Your task to perform on an android device: change notification settings in the gmail app Image 0: 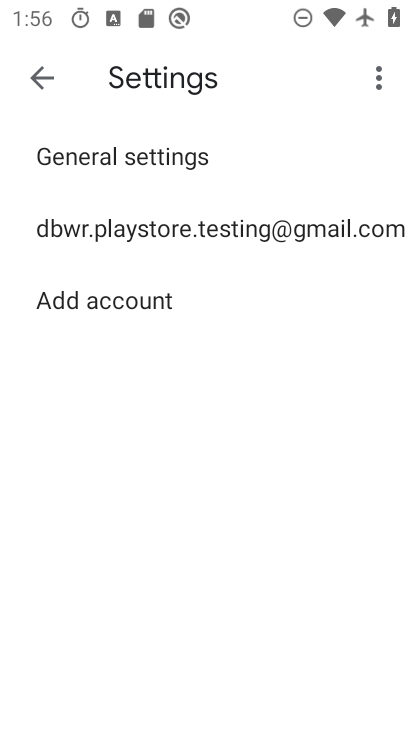
Step 0: press home button
Your task to perform on an android device: change notification settings in the gmail app Image 1: 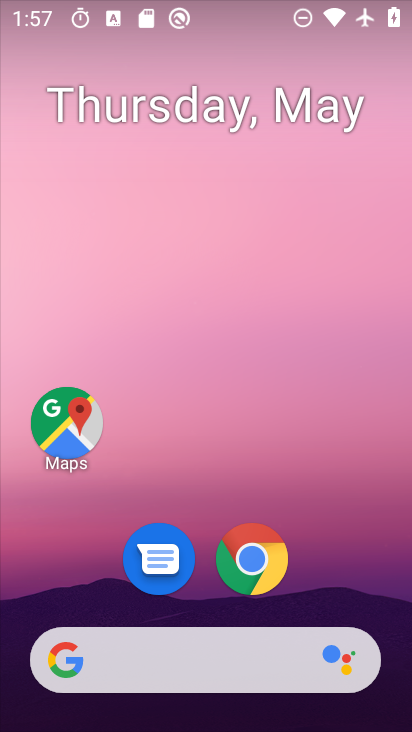
Step 1: drag from (237, 677) to (275, 238)
Your task to perform on an android device: change notification settings in the gmail app Image 2: 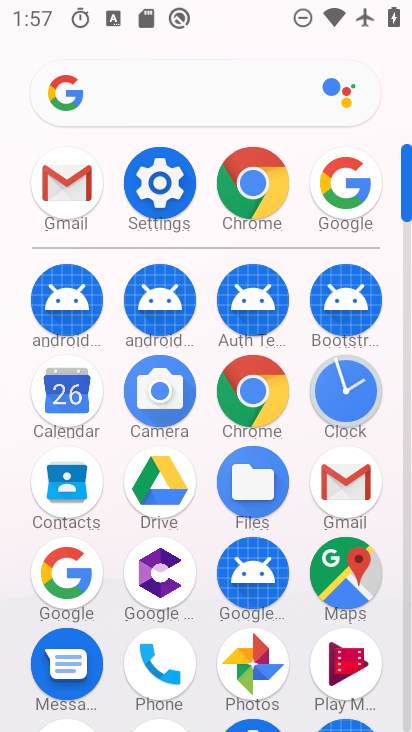
Step 2: click (350, 479)
Your task to perform on an android device: change notification settings in the gmail app Image 3: 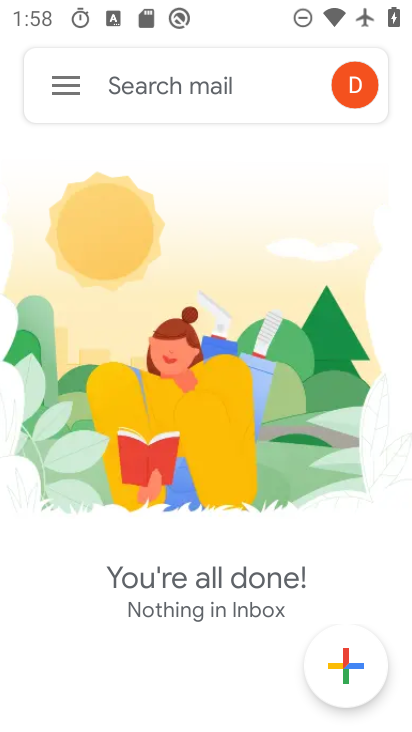
Step 3: click (65, 89)
Your task to perform on an android device: change notification settings in the gmail app Image 4: 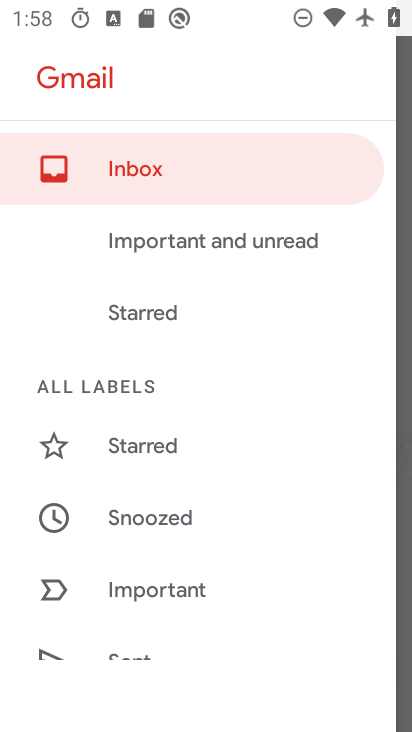
Step 4: drag from (186, 511) to (171, 95)
Your task to perform on an android device: change notification settings in the gmail app Image 5: 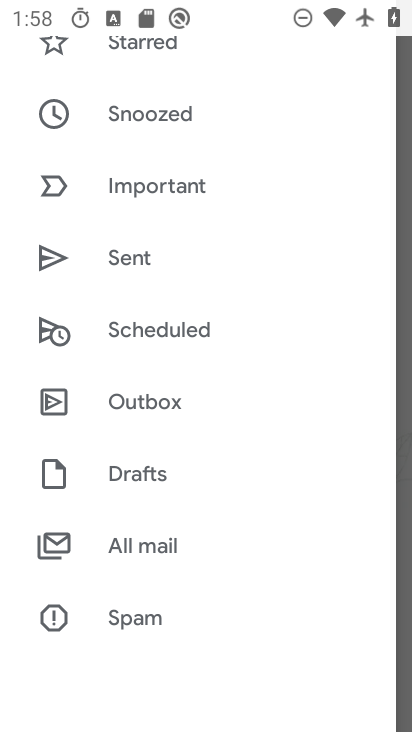
Step 5: drag from (158, 553) to (152, 149)
Your task to perform on an android device: change notification settings in the gmail app Image 6: 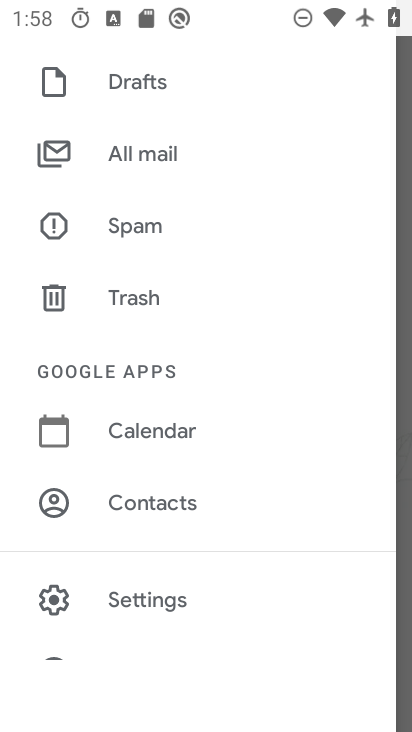
Step 6: click (135, 599)
Your task to perform on an android device: change notification settings in the gmail app Image 7: 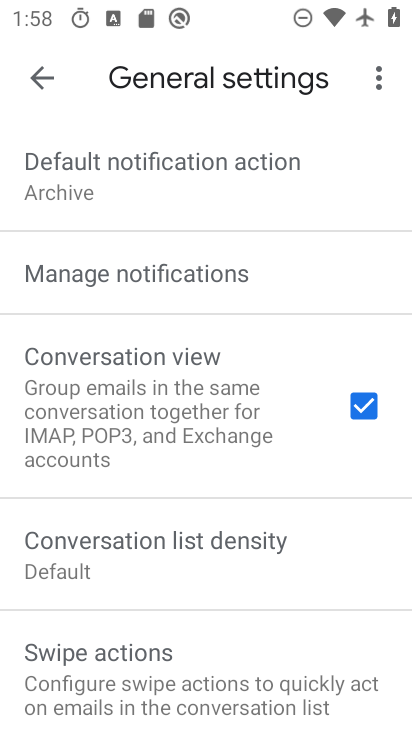
Step 7: click (127, 287)
Your task to perform on an android device: change notification settings in the gmail app Image 8: 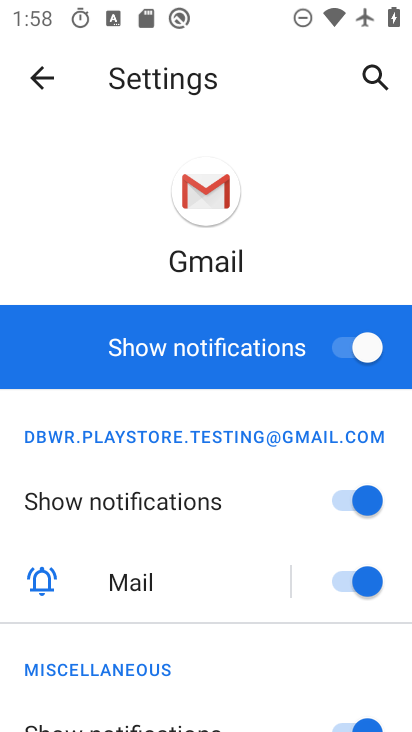
Step 8: click (293, 351)
Your task to perform on an android device: change notification settings in the gmail app Image 9: 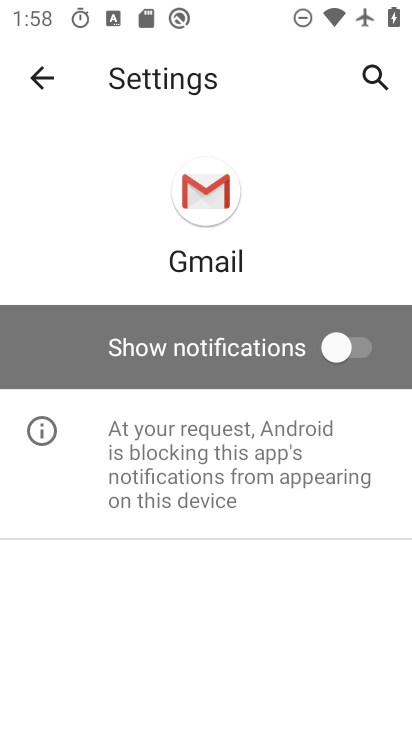
Step 9: task complete